Your task to perform on an android device: turn on wifi Image 0: 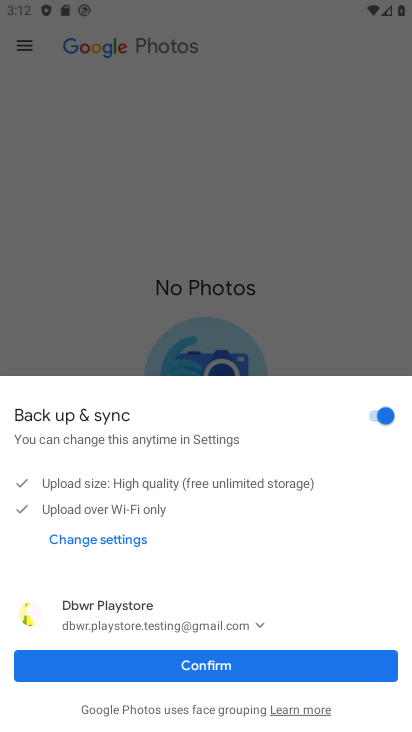
Step 0: press home button
Your task to perform on an android device: turn on wifi Image 1: 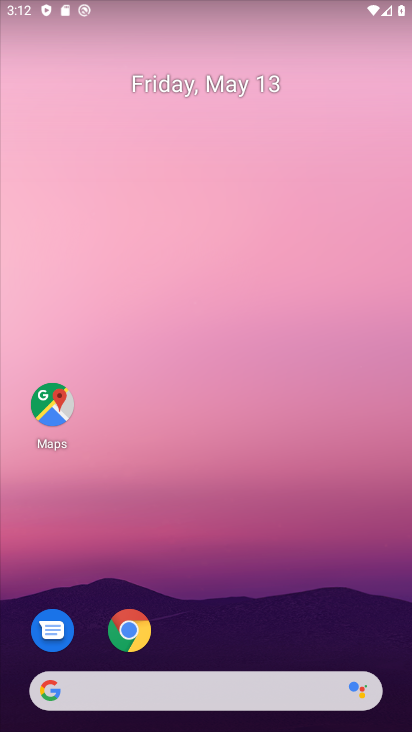
Step 1: drag from (233, 666) to (156, 83)
Your task to perform on an android device: turn on wifi Image 2: 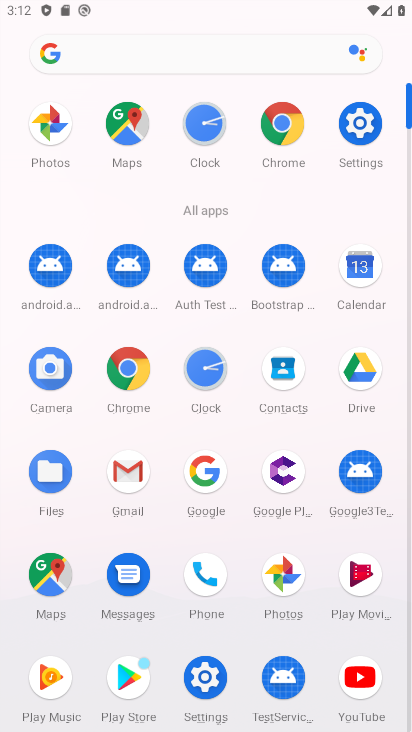
Step 2: click (359, 132)
Your task to perform on an android device: turn on wifi Image 3: 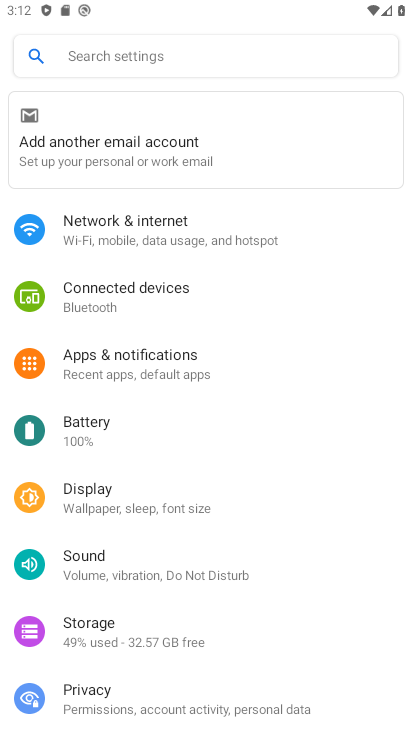
Step 3: click (138, 239)
Your task to perform on an android device: turn on wifi Image 4: 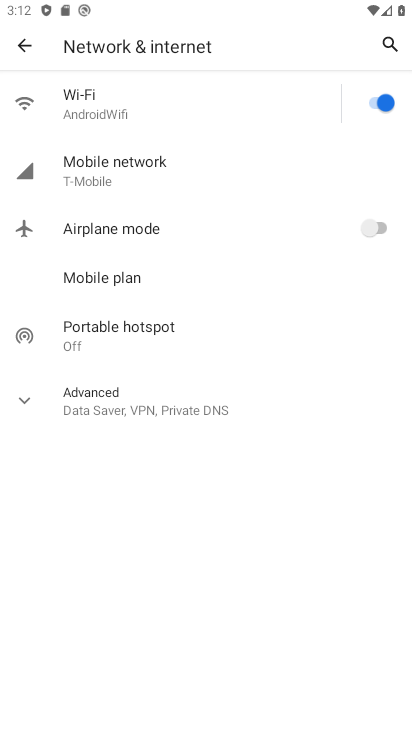
Step 4: task complete